Your task to perform on an android device: toggle translation in the chrome app Image 0: 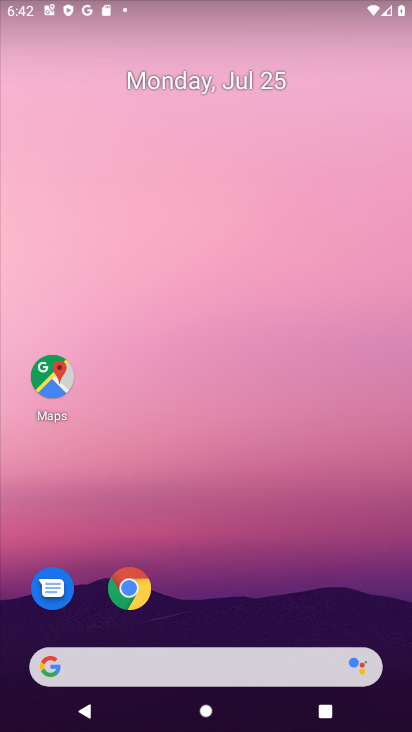
Step 0: click (136, 587)
Your task to perform on an android device: toggle translation in the chrome app Image 1: 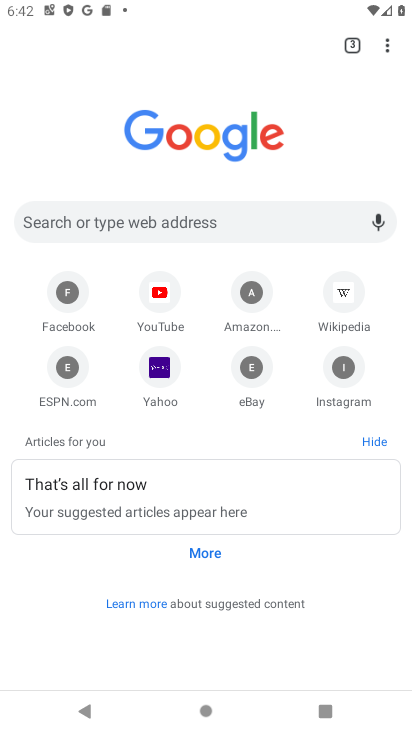
Step 1: task complete